Your task to perform on an android device: Play the last video I watched on Youtube Image 0: 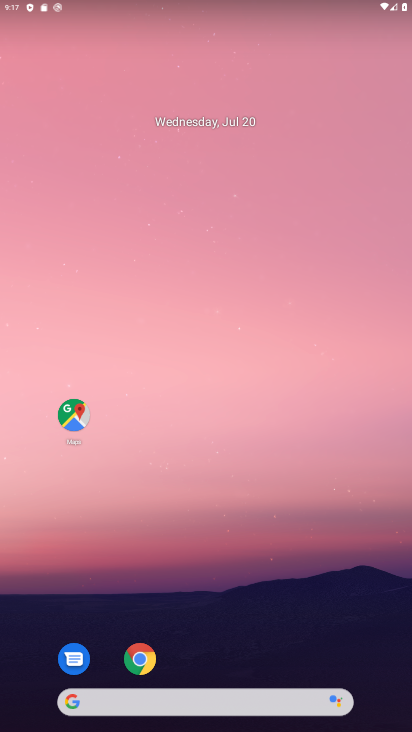
Step 0: drag from (281, 611) to (252, 5)
Your task to perform on an android device: Play the last video I watched on Youtube Image 1: 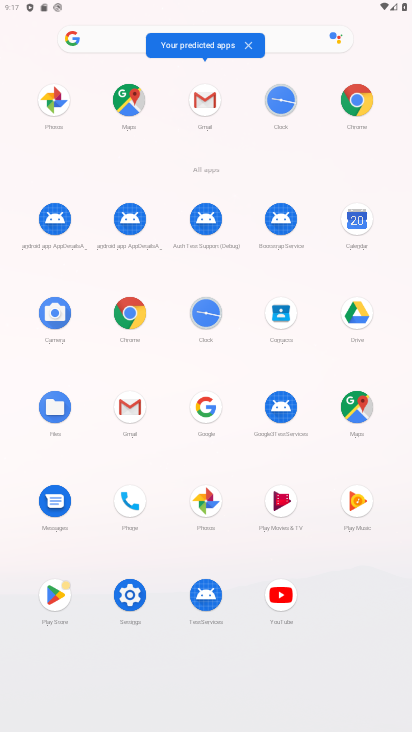
Step 1: click (285, 604)
Your task to perform on an android device: Play the last video I watched on Youtube Image 2: 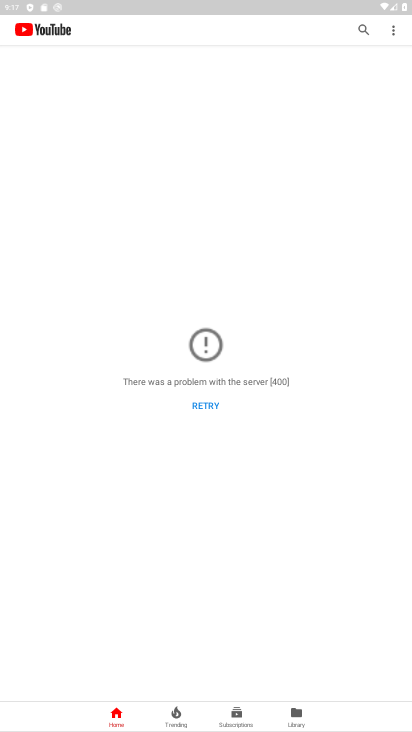
Step 2: click (210, 404)
Your task to perform on an android device: Play the last video I watched on Youtube Image 3: 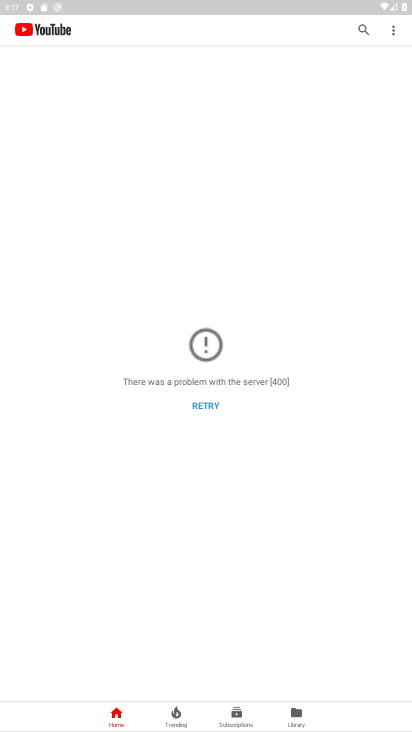
Step 3: click (210, 404)
Your task to perform on an android device: Play the last video I watched on Youtube Image 4: 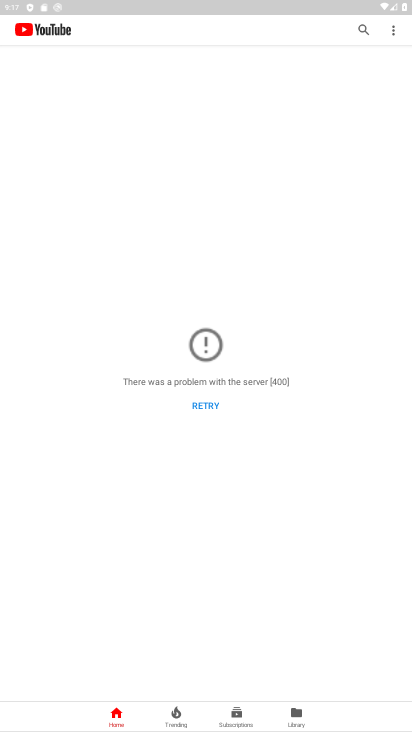
Step 4: task complete